Your task to perform on an android device: turn on the 12-hour format for clock Image 0: 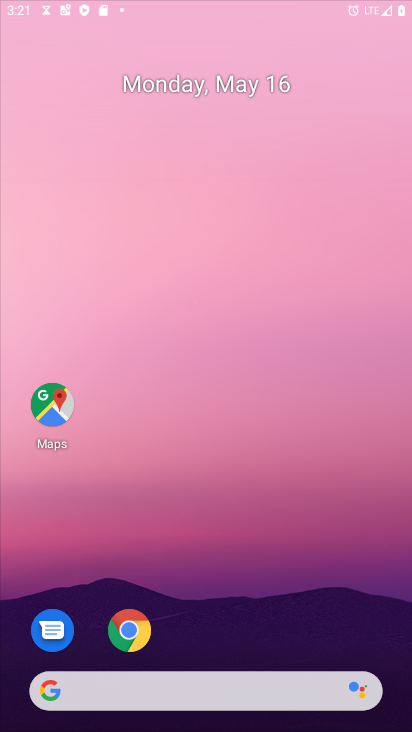
Step 0: press home button
Your task to perform on an android device: turn on the 12-hour format for clock Image 1: 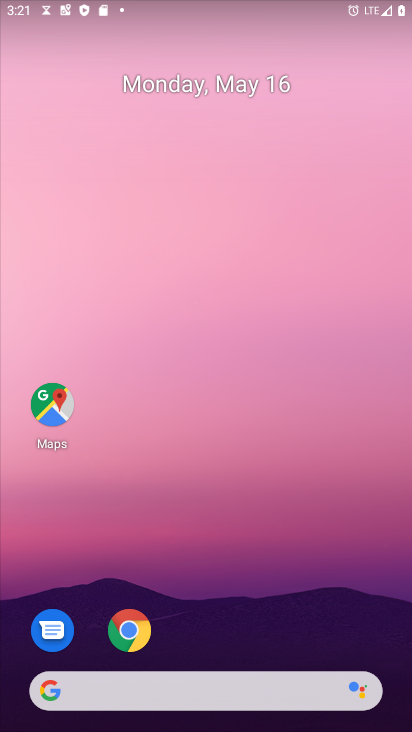
Step 1: drag from (167, 637) to (181, 243)
Your task to perform on an android device: turn on the 12-hour format for clock Image 2: 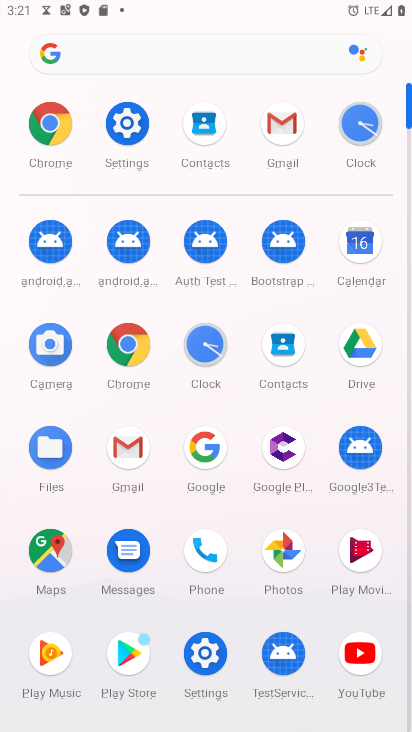
Step 2: click (201, 339)
Your task to perform on an android device: turn on the 12-hour format for clock Image 3: 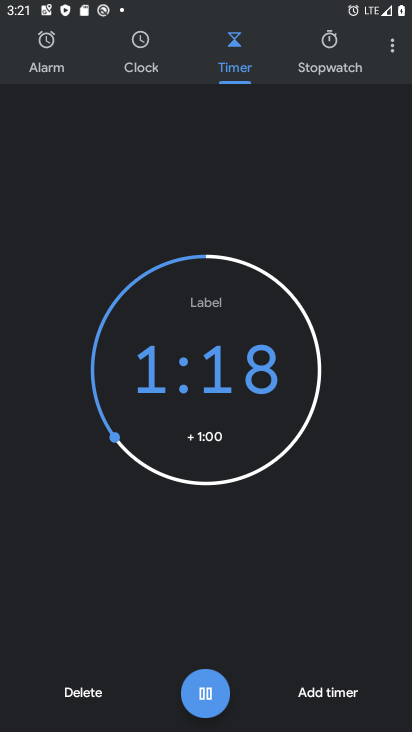
Step 3: click (385, 41)
Your task to perform on an android device: turn on the 12-hour format for clock Image 4: 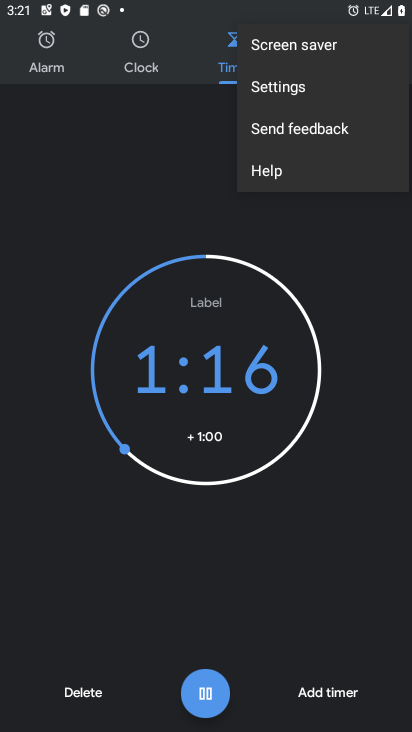
Step 4: click (291, 80)
Your task to perform on an android device: turn on the 12-hour format for clock Image 5: 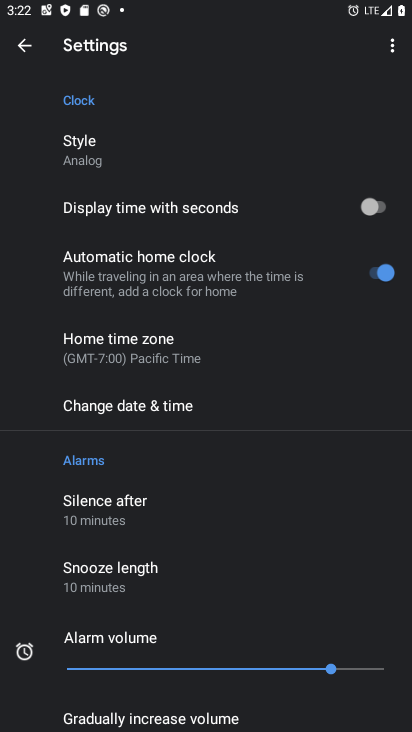
Step 5: click (194, 407)
Your task to perform on an android device: turn on the 12-hour format for clock Image 6: 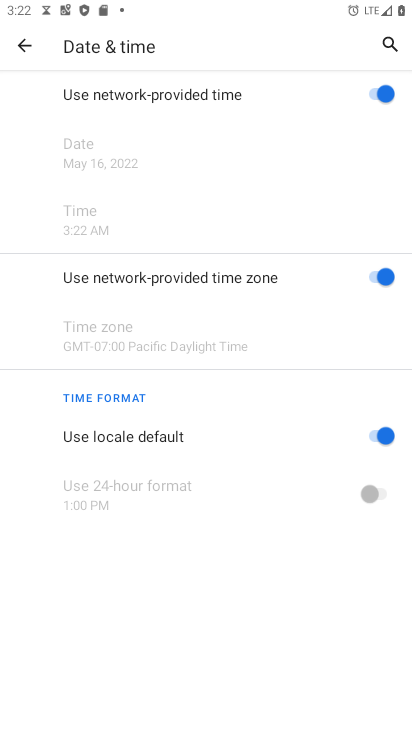
Step 6: task complete